Your task to perform on an android device: visit the assistant section in the google photos Image 0: 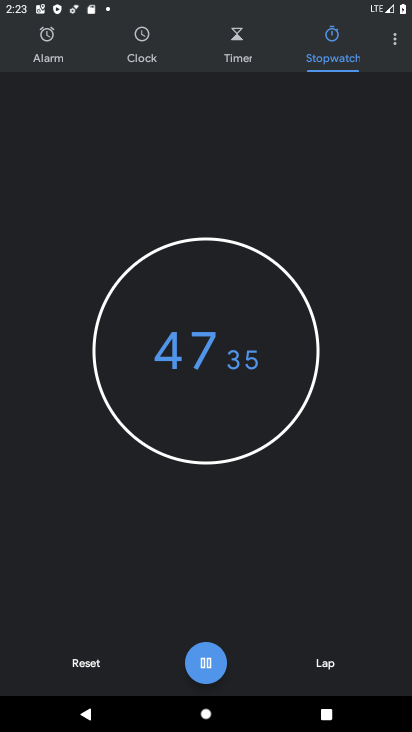
Step 0: press home button
Your task to perform on an android device: visit the assistant section in the google photos Image 1: 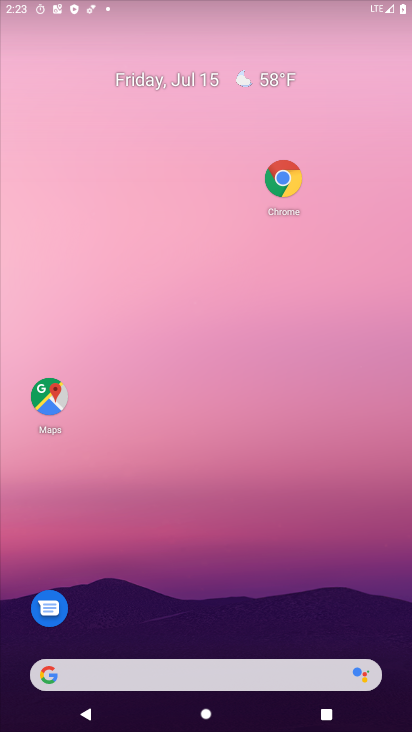
Step 1: drag from (260, 633) to (78, 42)
Your task to perform on an android device: visit the assistant section in the google photos Image 2: 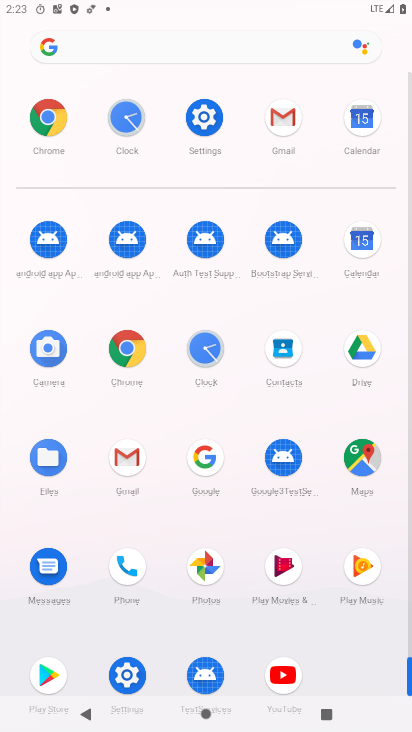
Step 2: click (203, 560)
Your task to perform on an android device: visit the assistant section in the google photos Image 3: 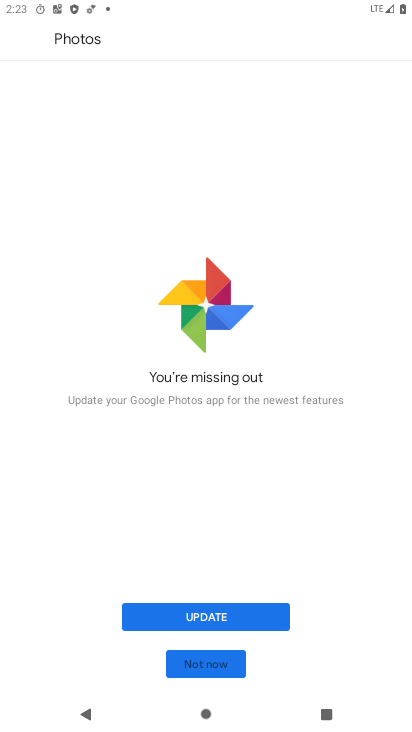
Step 3: click (252, 616)
Your task to perform on an android device: visit the assistant section in the google photos Image 4: 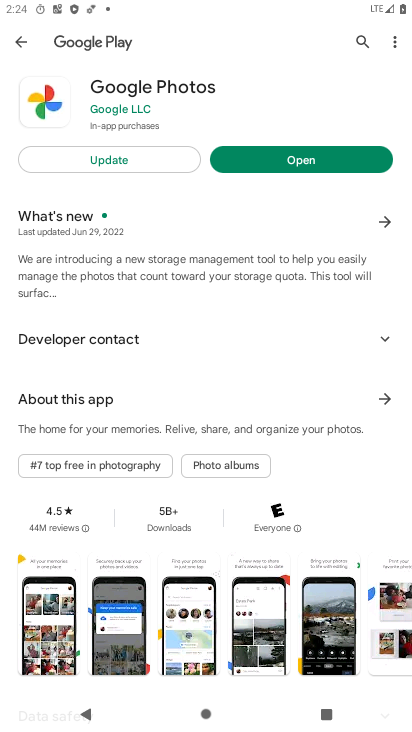
Step 4: click (95, 155)
Your task to perform on an android device: visit the assistant section in the google photos Image 5: 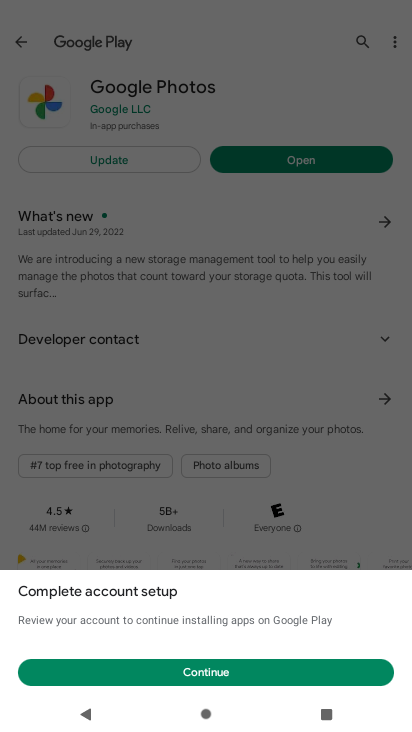
Step 5: task complete